Your task to perform on an android device: turn pop-ups on in chrome Image 0: 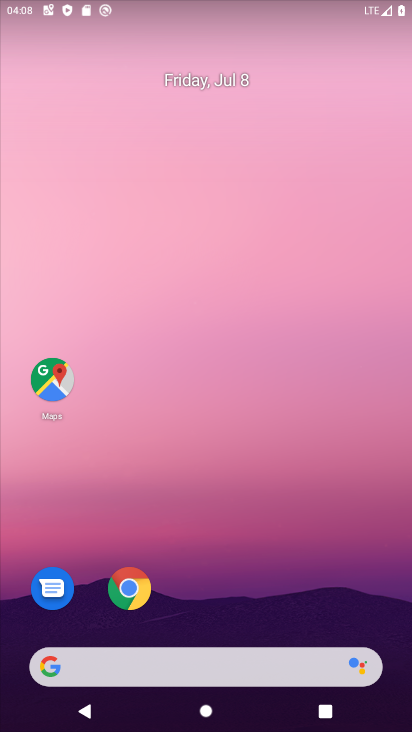
Step 0: click (131, 591)
Your task to perform on an android device: turn pop-ups on in chrome Image 1: 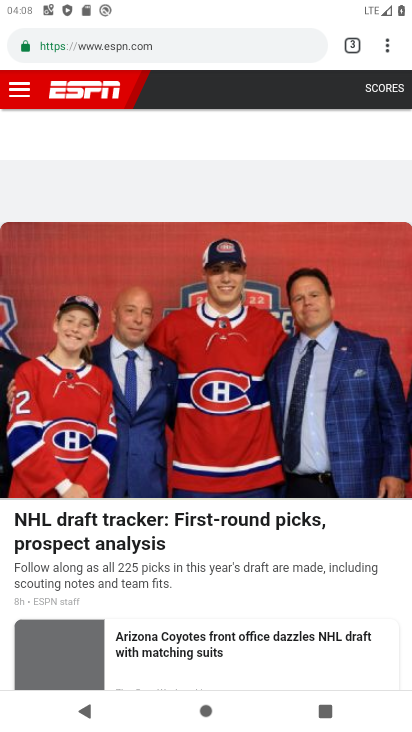
Step 1: click (388, 44)
Your task to perform on an android device: turn pop-ups on in chrome Image 2: 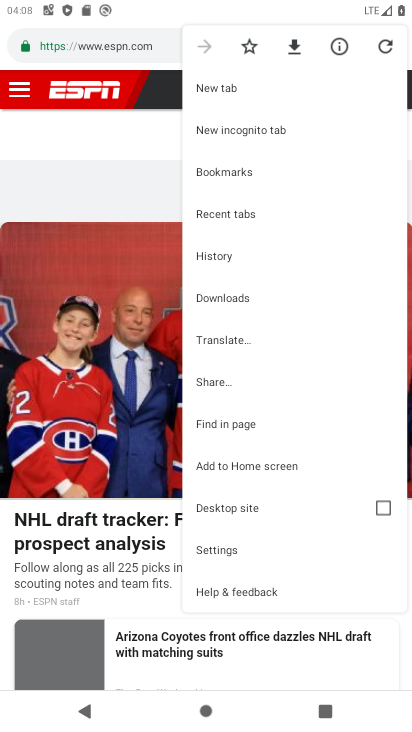
Step 2: click (220, 558)
Your task to perform on an android device: turn pop-ups on in chrome Image 3: 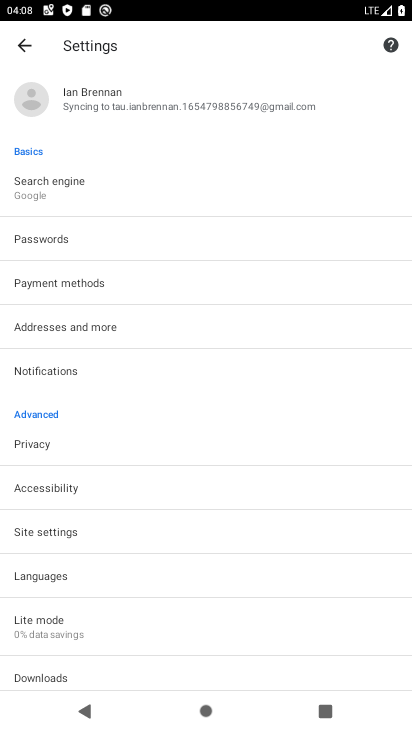
Step 3: click (62, 525)
Your task to perform on an android device: turn pop-ups on in chrome Image 4: 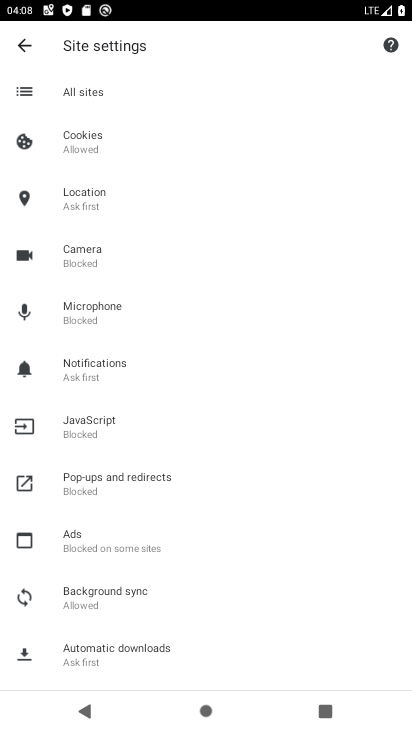
Step 4: click (113, 476)
Your task to perform on an android device: turn pop-ups on in chrome Image 5: 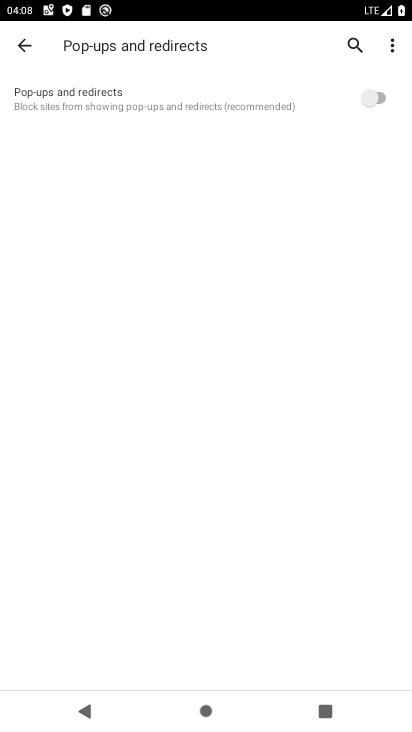
Step 5: task complete